Your task to perform on an android device: open a new tab in the chrome app Image 0: 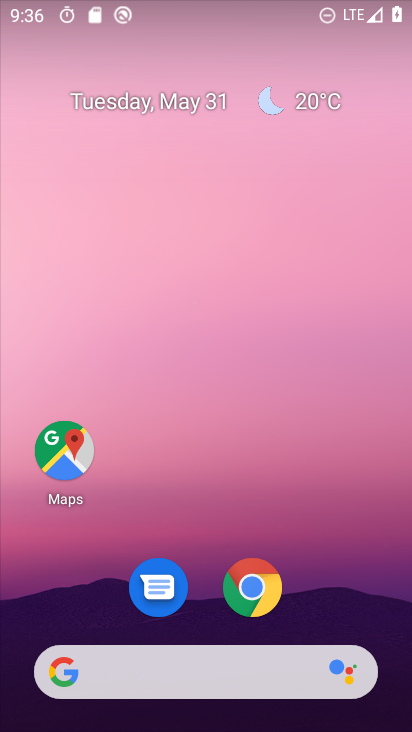
Step 0: click (248, 592)
Your task to perform on an android device: open a new tab in the chrome app Image 1: 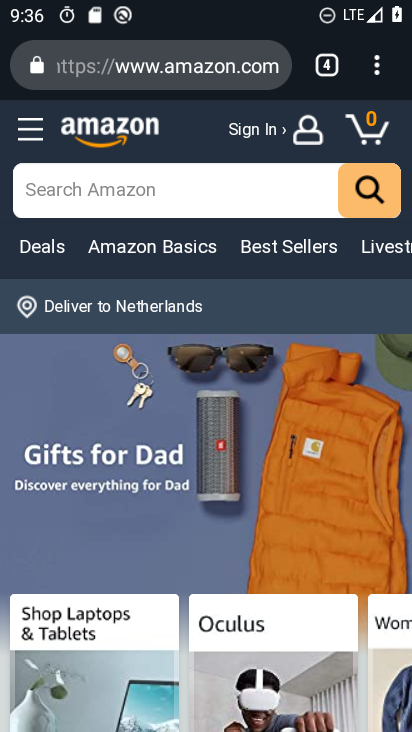
Step 1: click (324, 72)
Your task to perform on an android device: open a new tab in the chrome app Image 2: 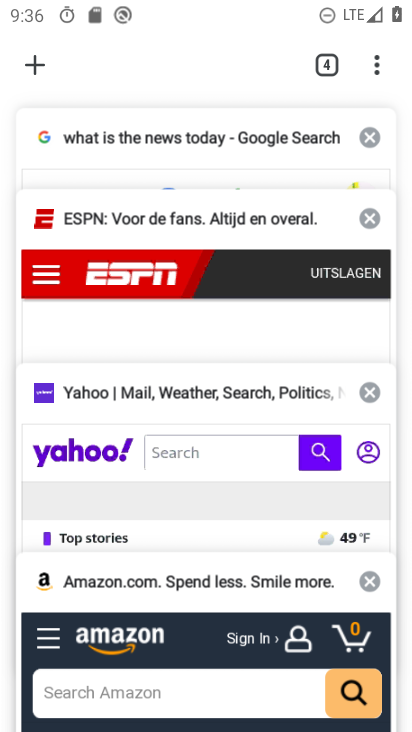
Step 2: click (27, 66)
Your task to perform on an android device: open a new tab in the chrome app Image 3: 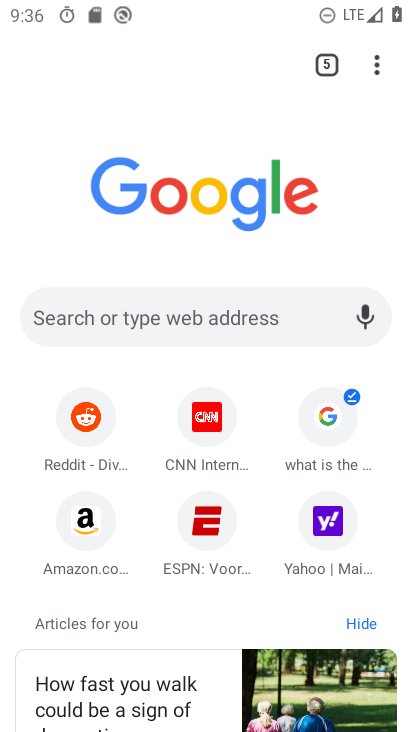
Step 3: task complete